Your task to perform on an android device: find snoozed emails in the gmail app Image 0: 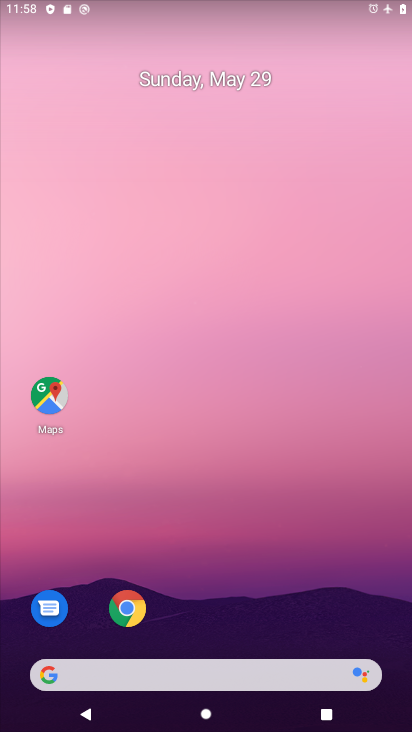
Step 0: drag from (156, 624) to (98, 50)
Your task to perform on an android device: find snoozed emails in the gmail app Image 1: 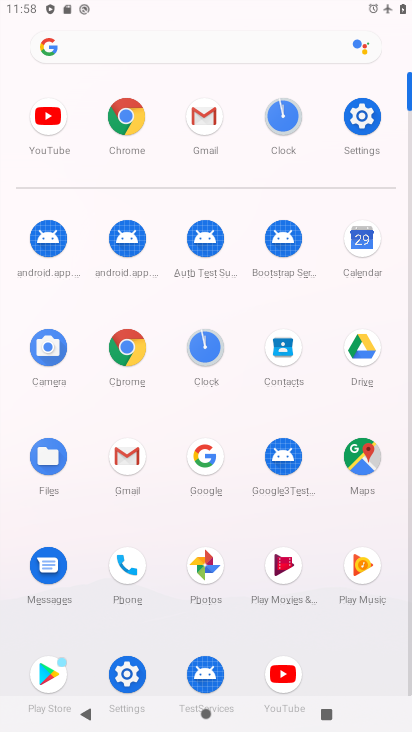
Step 1: click (109, 470)
Your task to perform on an android device: find snoozed emails in the gmail app Image 2: 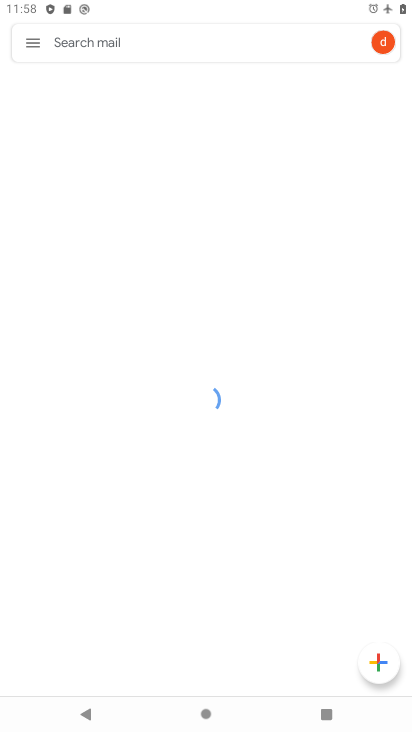
Step 2: click (21, 47)
Your task to perform on an android device: find snoozed emails in the gmail app Image 3: 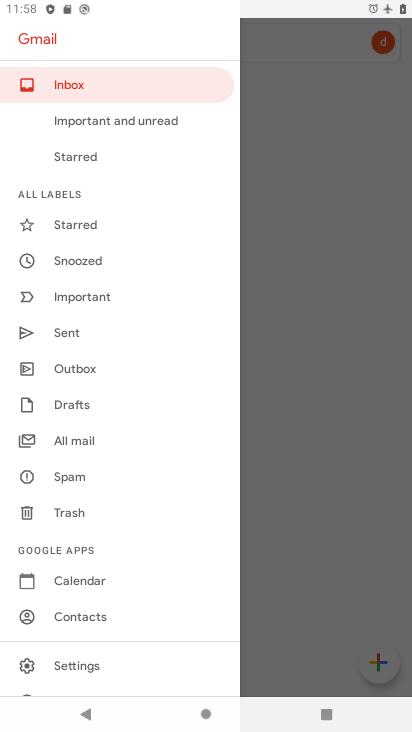
Step 3: click (56, 259)
Your task to perform on an android device: find snoozed emails in the gmail app Image 4: 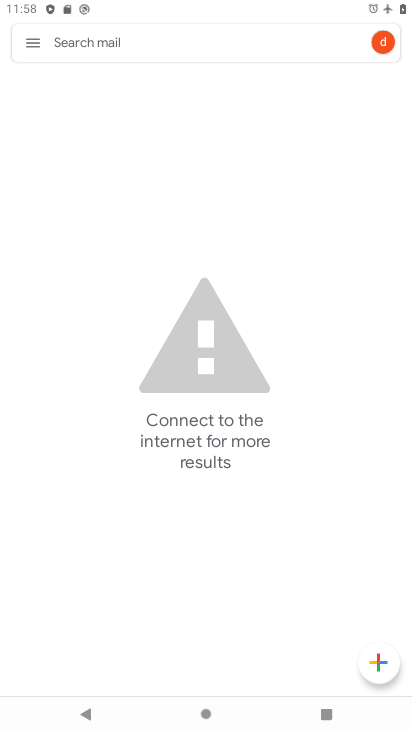
Step 4: task complete